Your task to perform on an android device: turn on priority inbox in the gmail app Image 0: 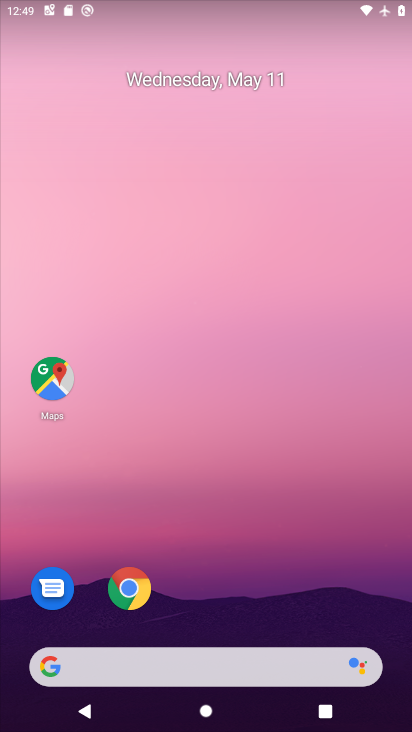
Step 0: drag from (220, 642) to (230, 144)
Your task to perform on an android device: turn on priority inbox in the gmail app Image 1: 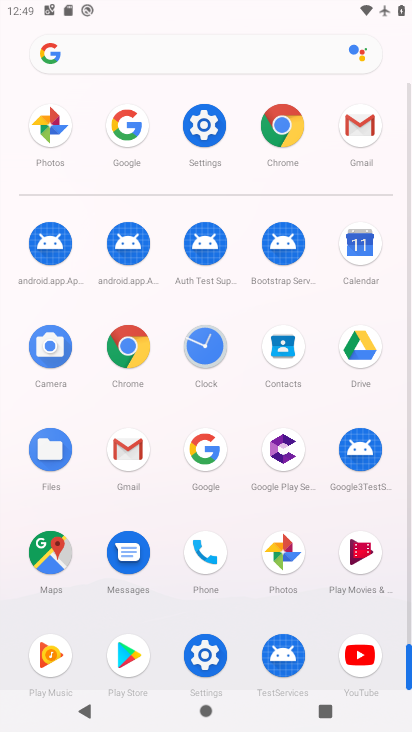
Step 1: click (364, 123)
Your task to perform on an android device: turn on priority inbox in the gmail app Image 2: 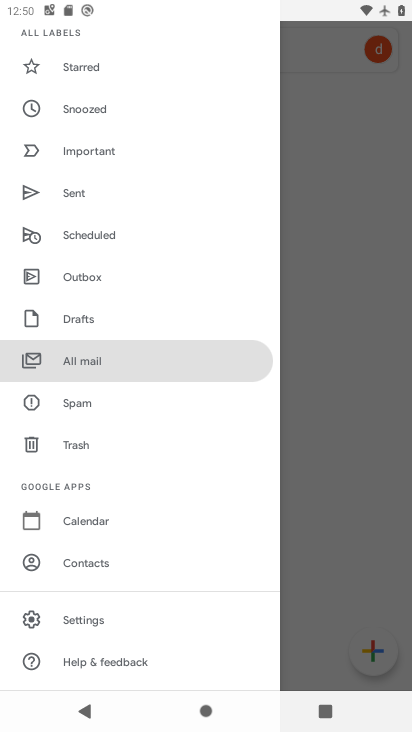
Step 2: click (64, 619)
Your task to perform on an android device: turn on priority inbox in the gmail app Image 3: 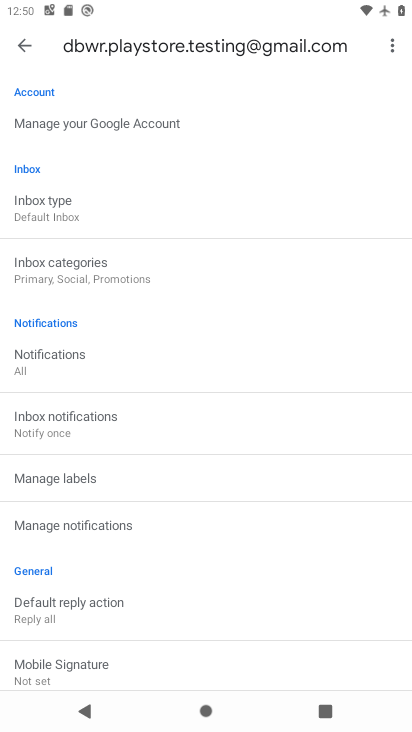
Step 3: click (49, 202)
Your task to perform on an android device: turn on priority inbox in the gmail app Image 4: 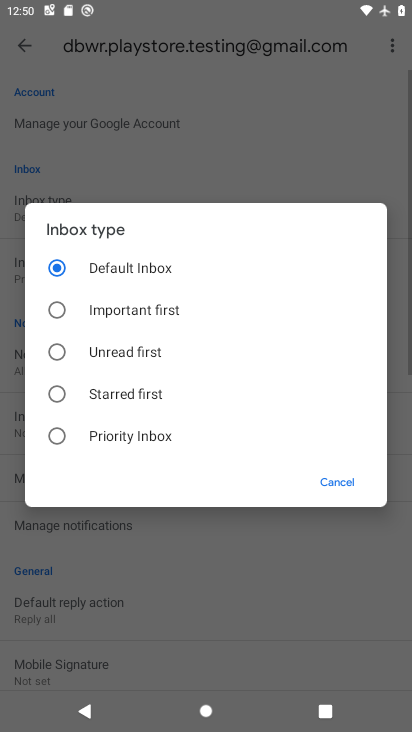
Step 4: click (99, 431)
Your task to perform on an android device: turn on priority inbox in the gmail app Image 5: 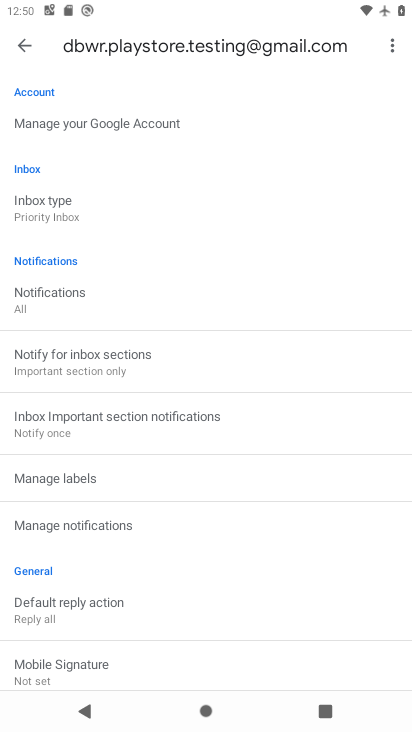
Step 5: task complete